Your task to perform on an android device: add a contact in the contacts app Image 0: 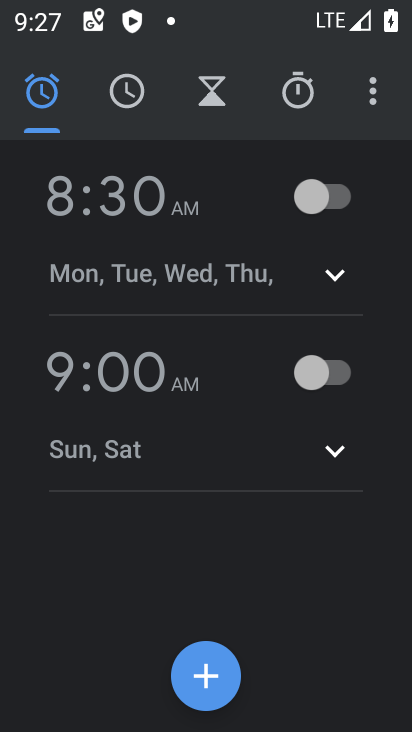
Step 0: press home button
Your task to perform on an android device: add a contact in the contacts app Image 1: 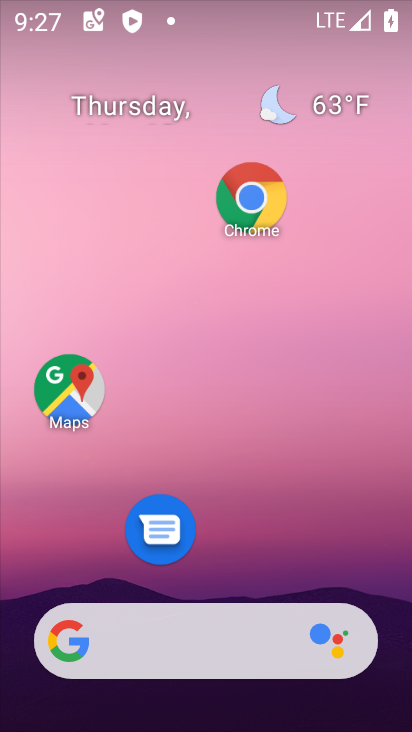
Step 1: drag from (276, 582) to (283, 71)
Your task to perform on an android device: add a contact in the contacts app Image 2: 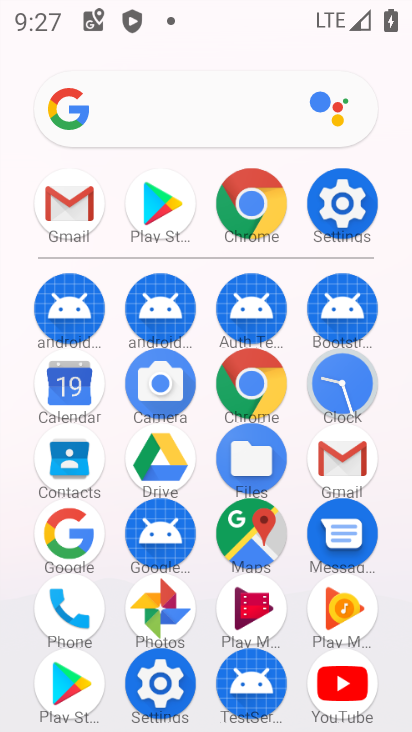
Step 2: click (97, 473)
Your task to perform on an android device: add a contact in the contacts app Image 3: 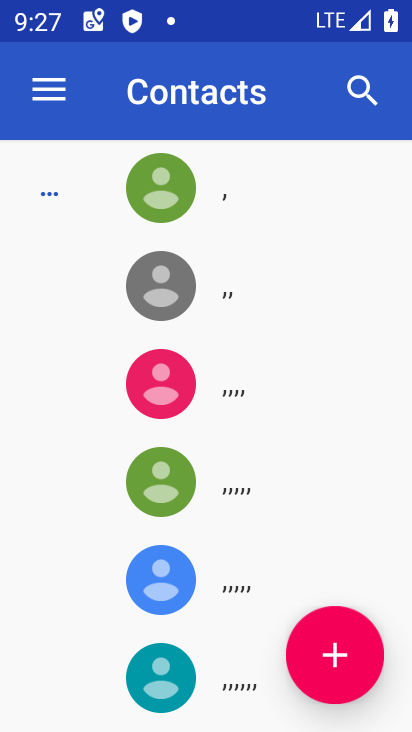
Step 3: click (339, 675)
Your task to perform on an android device: add a contact in the contacts app Image 4: 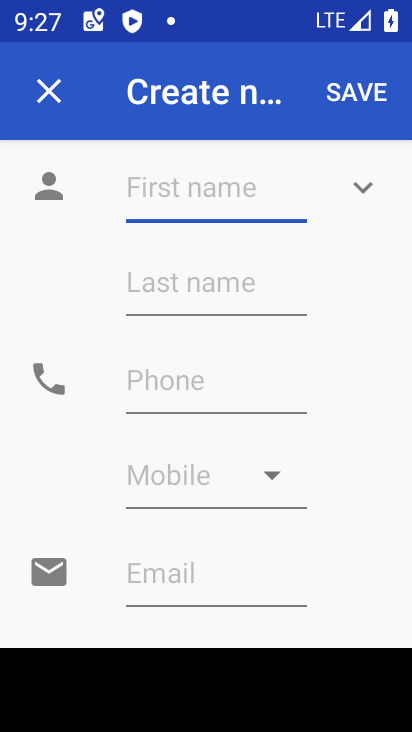
Step 4: type "jungle"
Your task to perform on an android device: add a contact in the contacts app Image 5: 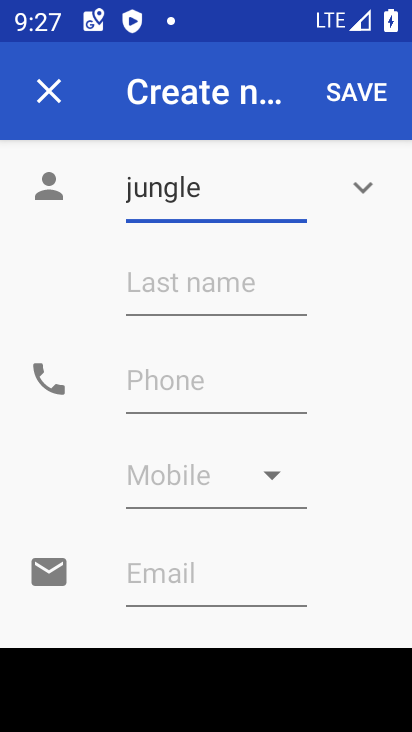
Step 5: click (156, 388)
Your task to perform on an android device: add a contact in the contacts app Image 6: 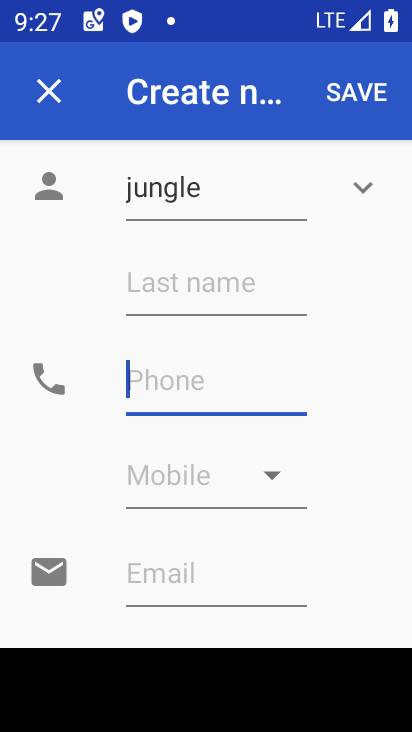
Step 6: type "9394003940"
Your task to perform on an android device: add a contact in the contacts app Image 7: 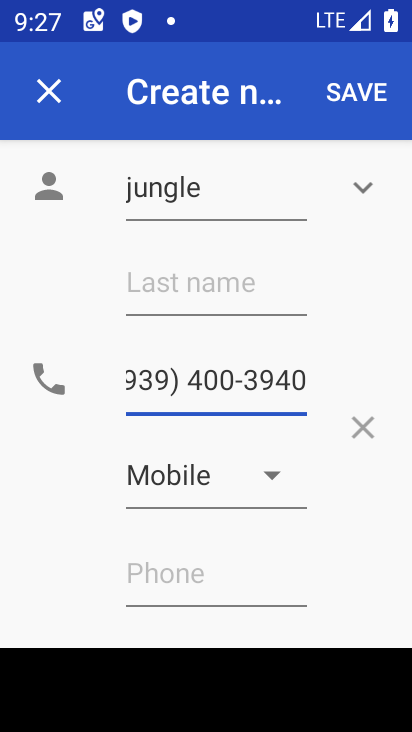
Step 7: click (352, 93)
Your task to perform on an android device: add a contact in the contacts app Image 8: 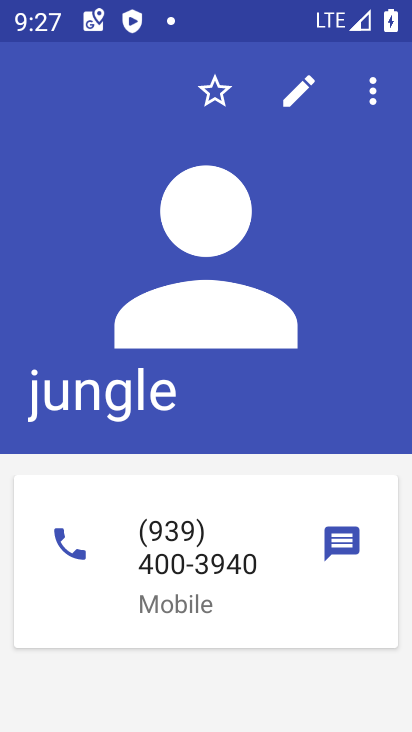
Step 8: task complete